Your task to perform on an android device: make emails show in primary in the gmail app Image 0: 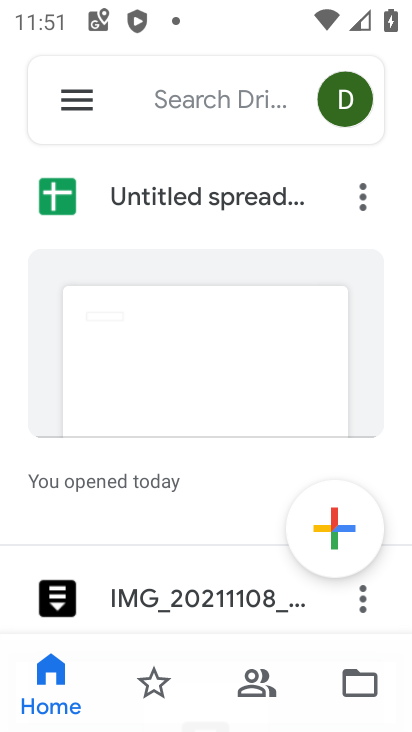
Step 0: press home button
Your task to perform on an android device: make emails show in primary in the gmail app Image 1: 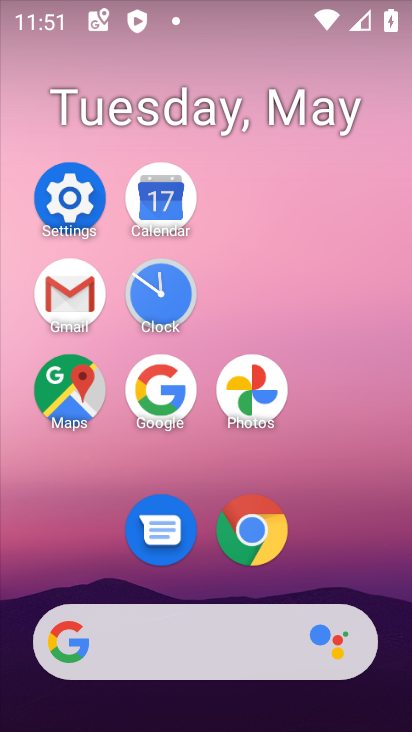
Step 1: click (57, 288)
Your task to perform on an android device: make emails show in primary in the gmail app Image 2: 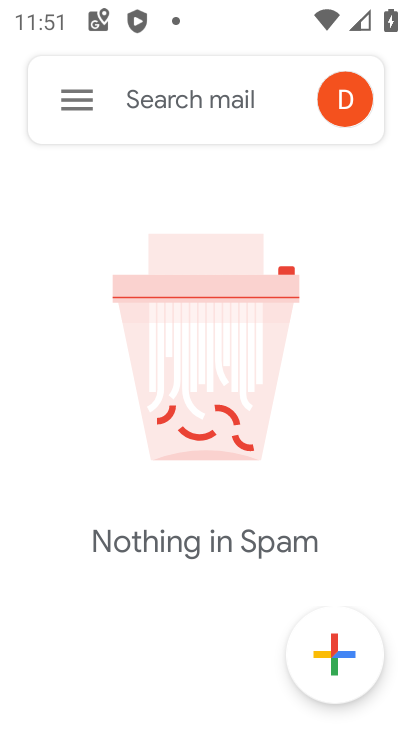
Step 2: click (56, 109)
Your task to perform on an android device: make emails show in primary in the gmail app Image 3: 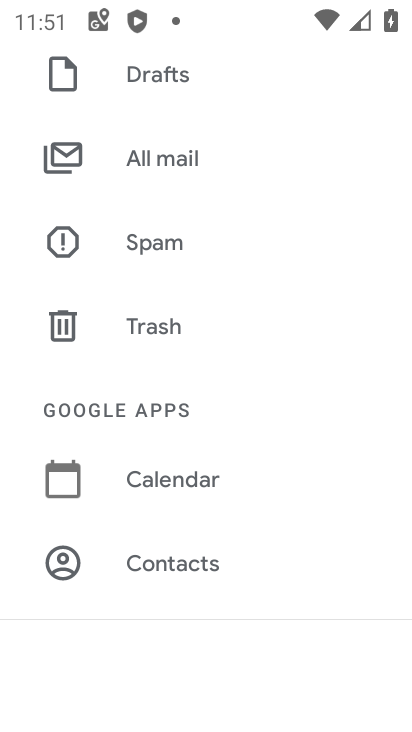
Step 3: drag from (156, 496) to (212, 154)
Your task to perform on an android device: make emails show in primary in the gmail app Image 4: 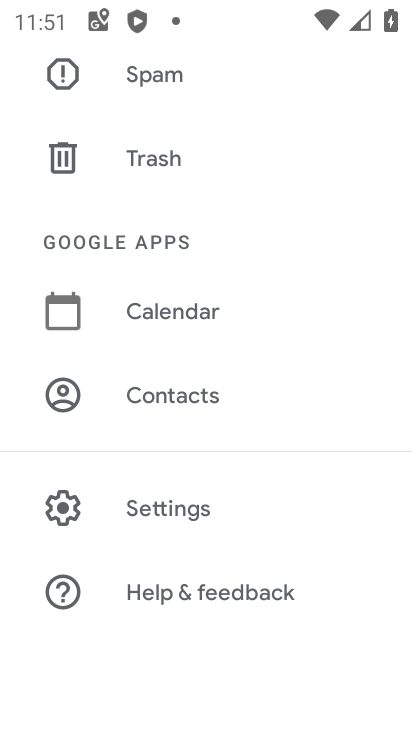
Step 4: click (232, 497)
Your task to perform on an android device: make emails show in primary in the gmail app Image 5: 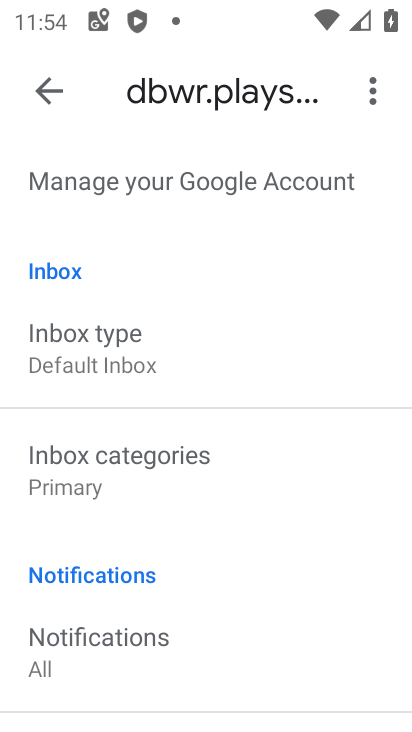
Step 5: task complete